Your task to perform on an android device: What is the news today? Image 0: 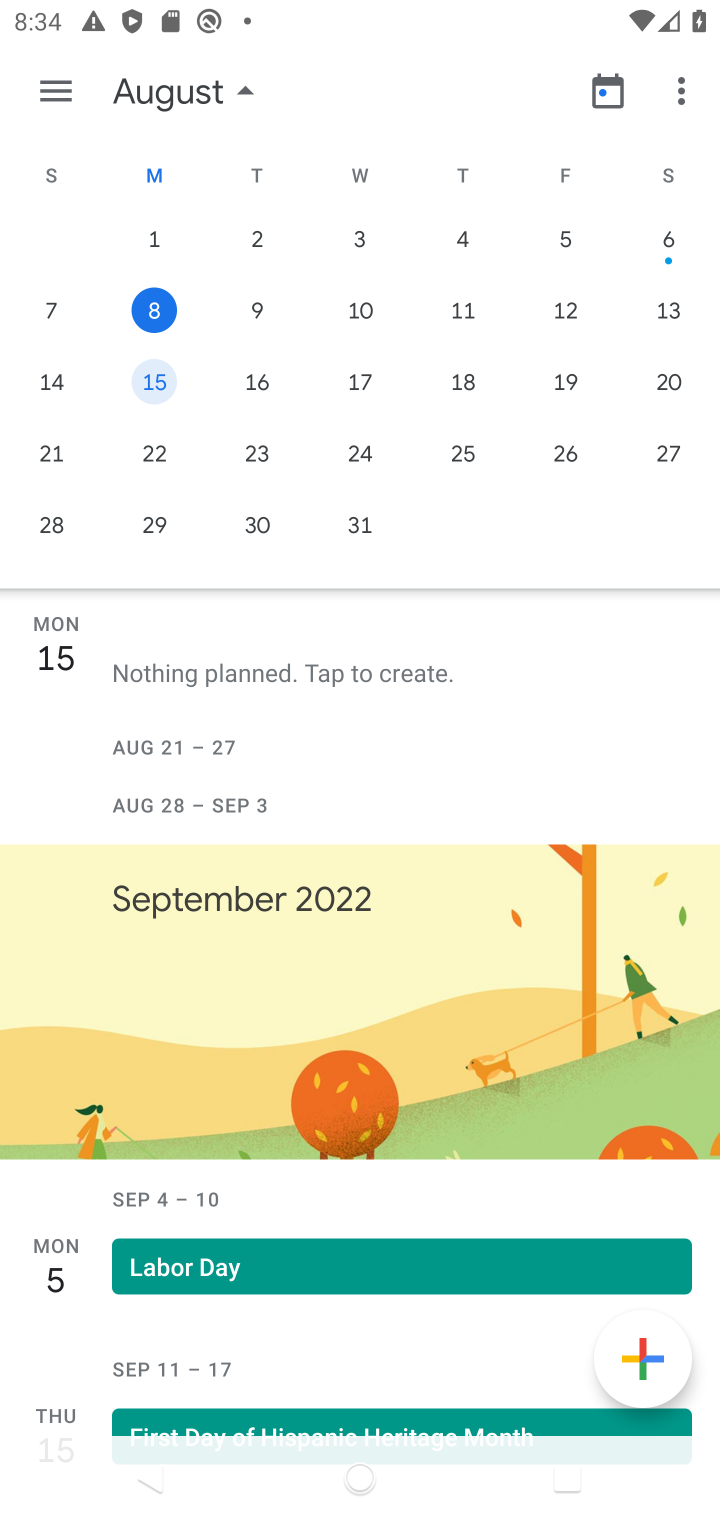
Step 0: press home button
Your task to perform on an android device: What is the news today? Image 1: 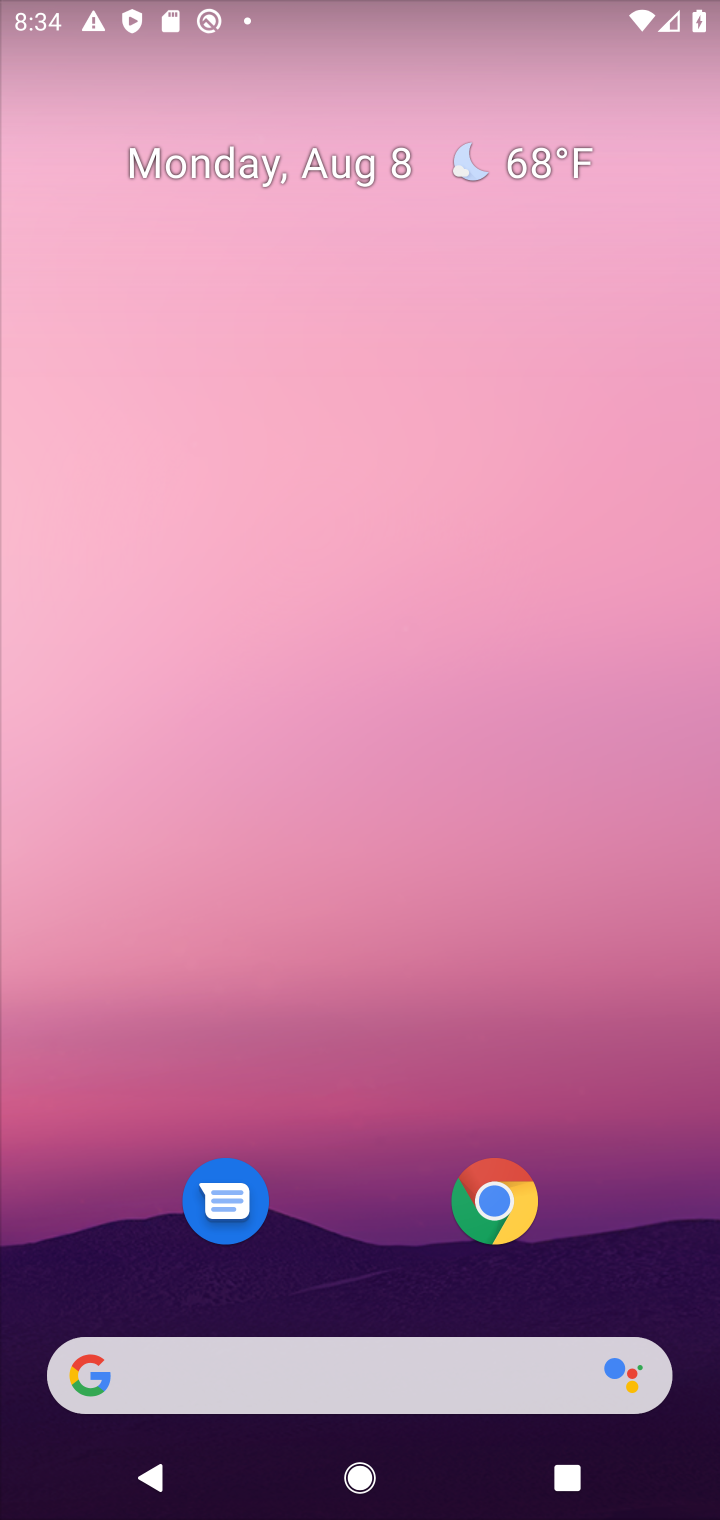
Step 1: task complete